Your task to perform on an android device: Do I have any events today? Image 0: 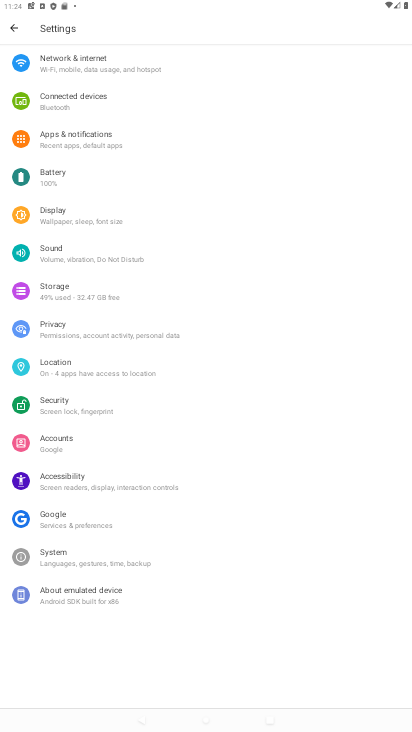
Step 0: press home button
Your task to perform on an android device: Do I have any events today? Image 1: 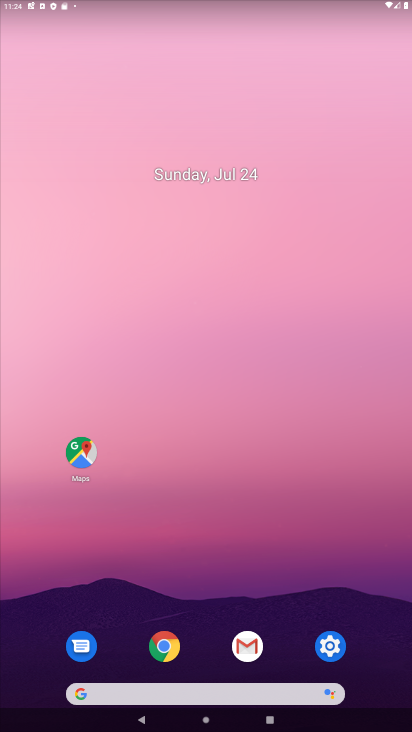
Step 1: drag from (211, 703) to (188, 63)
Your task to perform on an android device: Do I have any events today? Image 2: 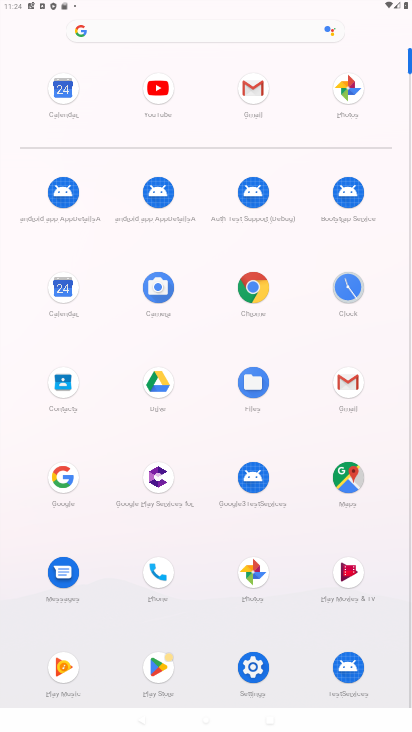
Step 2: click (57, 289)
Your task to perform on an android device: Do I have any events today? Image 3: 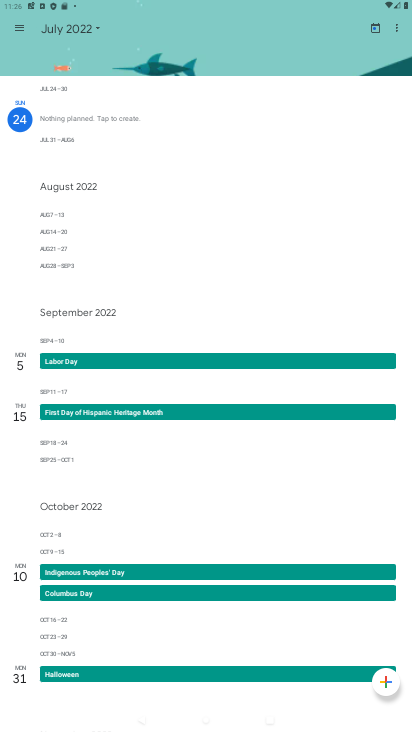
Step 3: task complete